Your task to perform on an android device: turn off wifi Image 0: 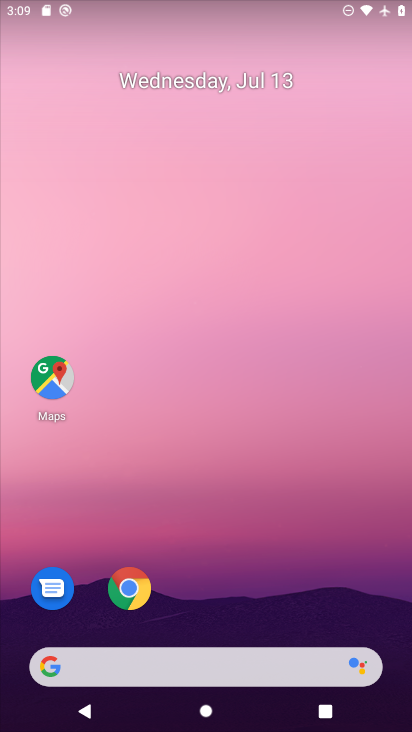
Step 0: drag from (196, 622) to (195, 97)
Your task to perform on an android device: turn off wifi Image 1: 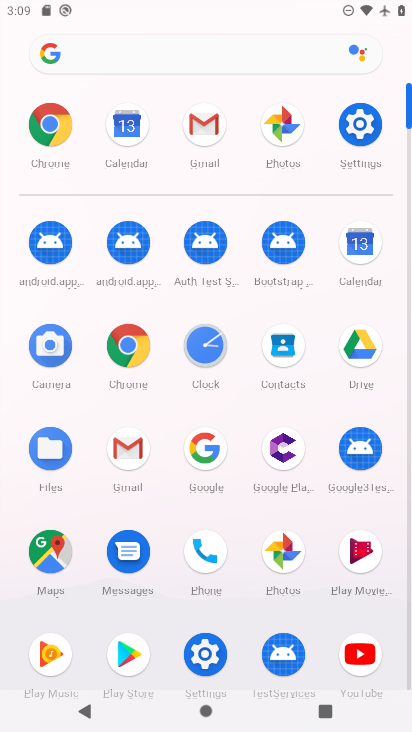
Step 1: click (346, 139)
Your task to perform on an android device: turn off wifi Image 2: 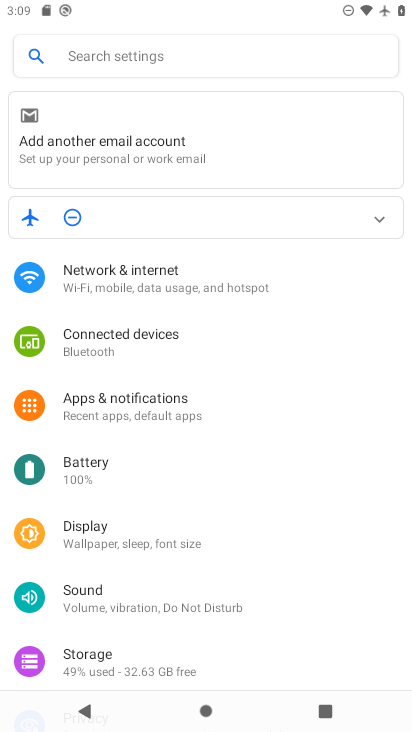
Step 2: drag from (115, 152) to (117, 12)
Your task to perform on an android device: turn off wifi Image 3: 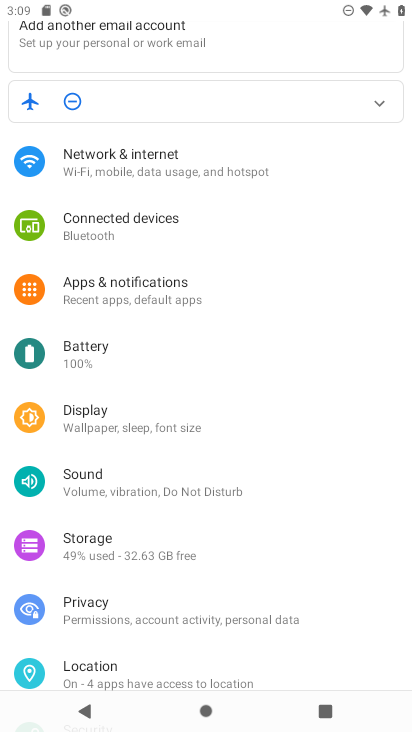
Step 3: click (142, 130)
Your task to perform on an android device: turn off wifi Image 4: 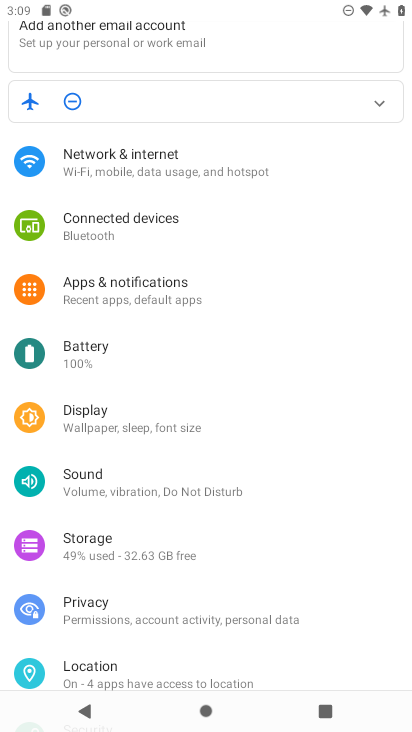
Step 4: click (132, 171)
Your task to perform on an android device: turn off wifi Image 5: 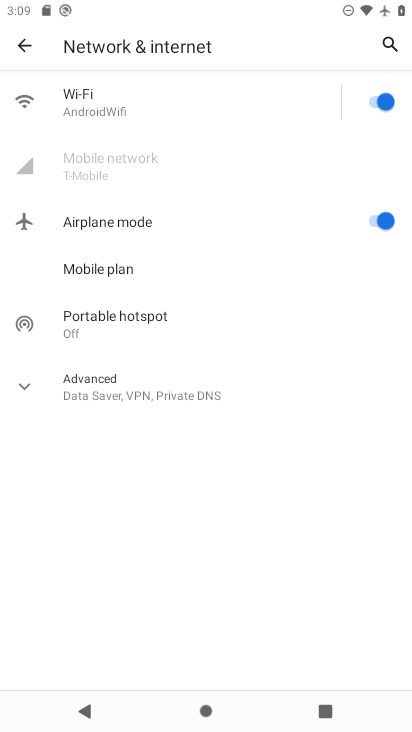
Step 5: click (372, 98)
Your task to perform on an android device: turn off wifi Image 6: 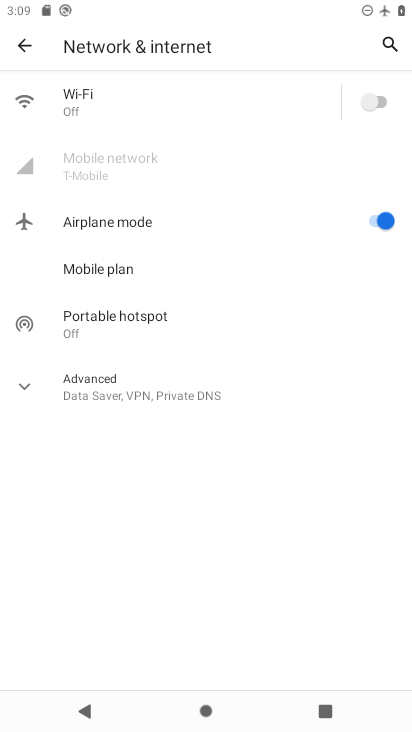
Step 6: task complete